Your task to perform on an android device: Go to Wikipedia Image 0: 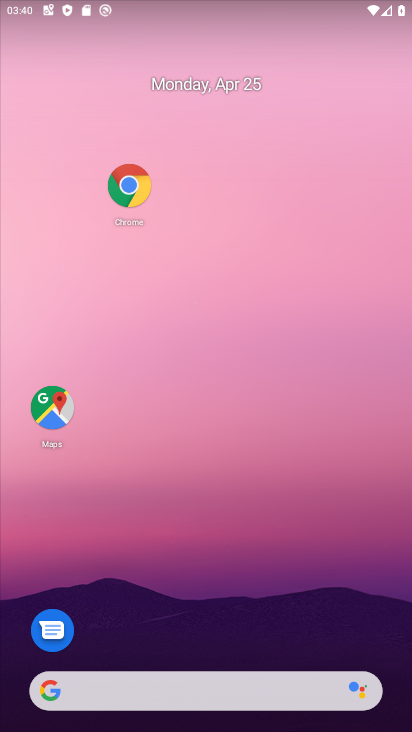
Step 0: click (128, 186)
Your task to perform on an android device: Go to Wikipedia Image 1: 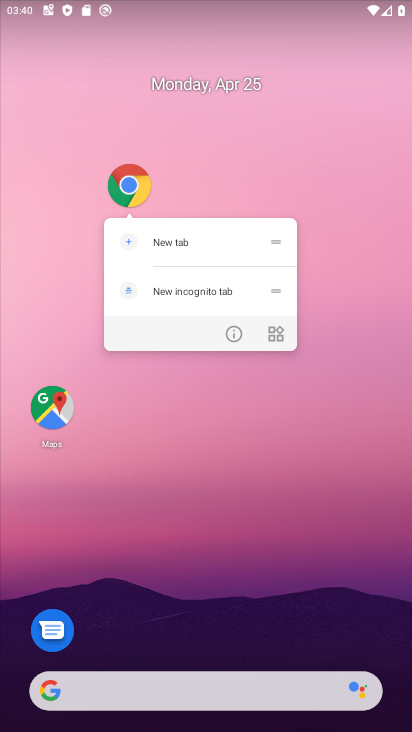
Step 1: click (239, 332)
Your task to perform on an android device: Go to Wikipedia Image 2: 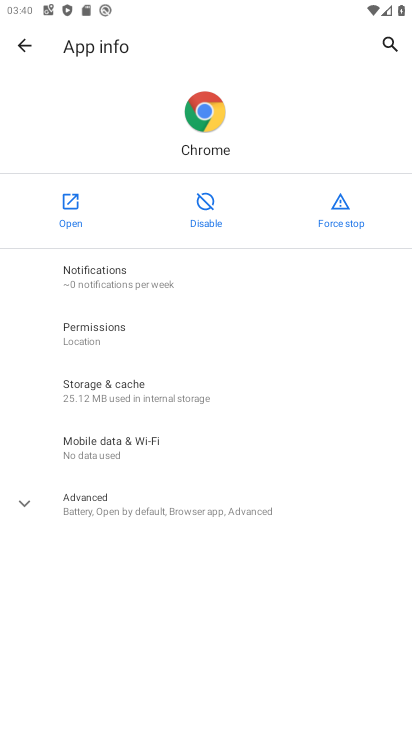
Step 2: click (72, 224)
Your task to perform on an android device: Go to Wikipedia Image 3: 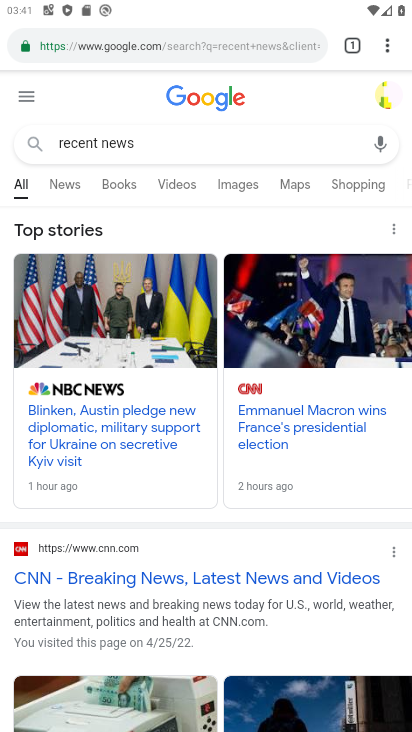
Step 3: click (226, 147)
Your task to perform on an android device: Go to Wikipedia Image 4: 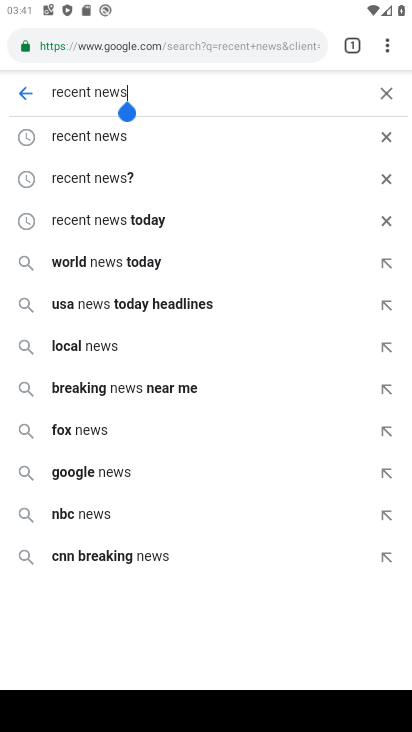
Step 4: click (392, 94)
Your task to perform on an android device: Go to Wikipedia Image 5: 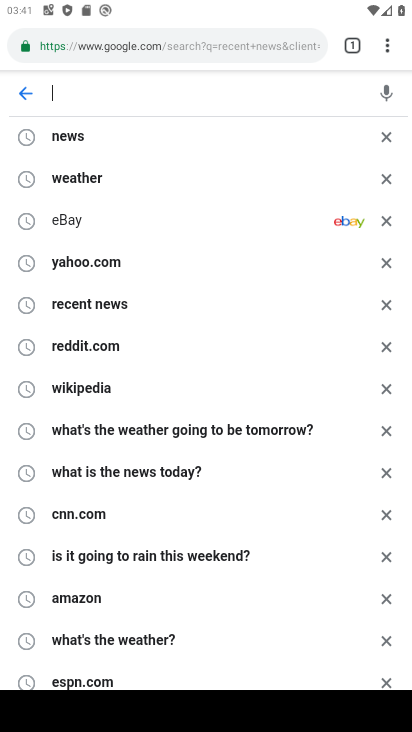
Step 5: type "wikipedia"
Your task to perform on an android device: Go to Wikipedia Image 6: 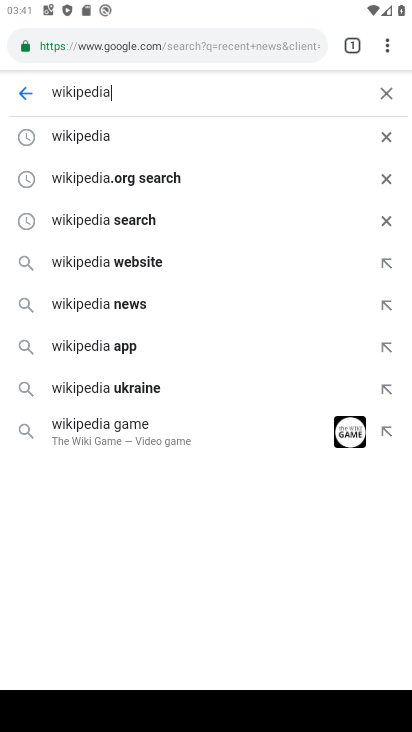
Step 6: click (91, 141)
Your task to perform on an android device: Go to Wikipedia Image 7: 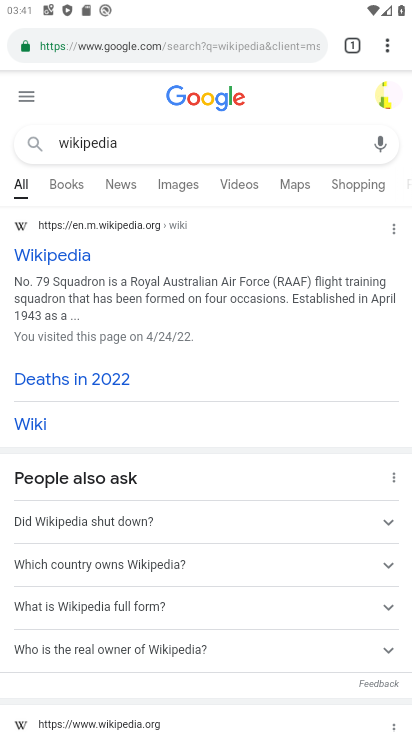
Step 7: task complete